Your task to perform on an android device: Search for custom t-shirts on Etsy. Image 0: 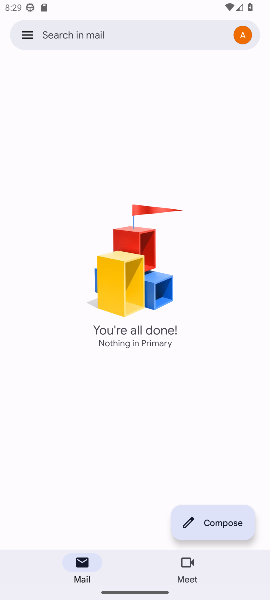
Step 0: press home button
Your task to perform on an android device: Search for custom t-shirts on Etsy. Image 1: 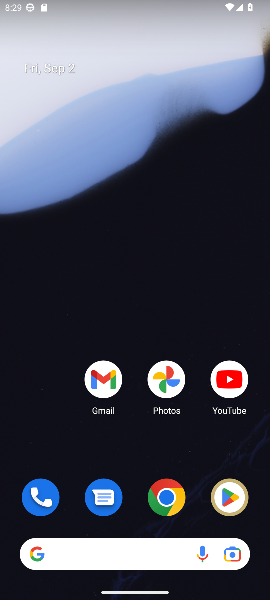
Step 1: drag from (126, 511) to (122, 251)
Your task to perform on an android device: Search for custom t-shirts on Etsy. Image 2: 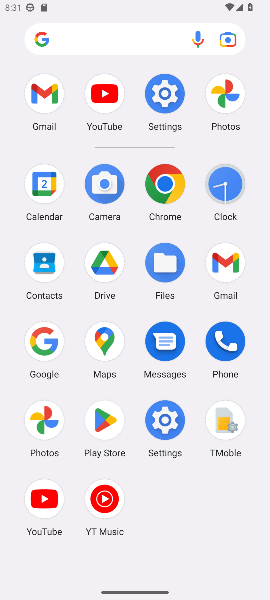
Step 2: click (48, 339)
Your task to perform on an android device: Search for custom t-shirts on Etsy. Image 3: 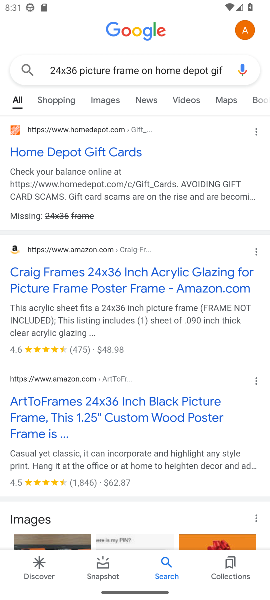
Step 3: click (126, 64)
Your task to perform on an android device: Search for custom t-shirts on Etsy. Image 4: 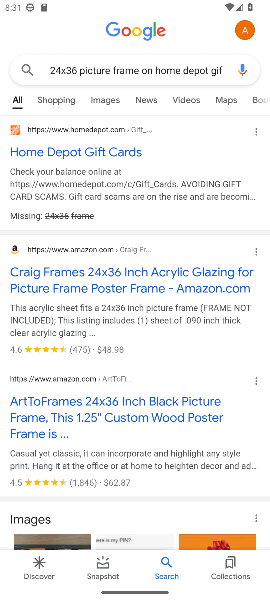
Step 4: click (126, 64)
Your task to perform on an android device: Search for custom t-shirts on Etsy. Image 5: 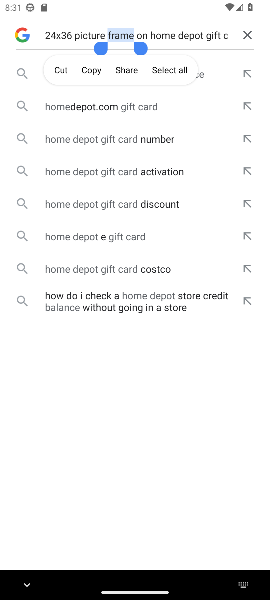
Step 5: click (246, 32)
Your task to perform on an android device: Search for custom t-shirts on Etsy. Image 6: 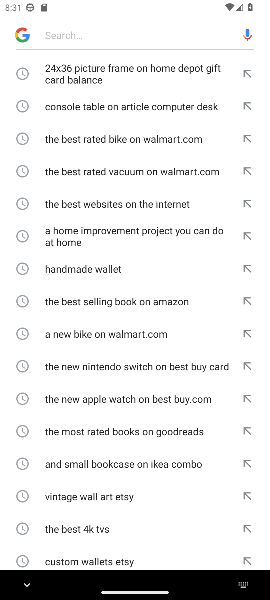
Step 6: type "custom t-shirts on Etsy."
Your task to perform on an android device: Search for custom t-shirts on Etsy. Image 7: 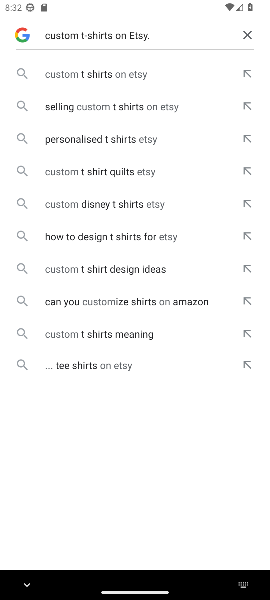
Step 7: click (106, 71)
Your task to perform on an android device: Search for custom t-shirts on Etsy. Image 8: 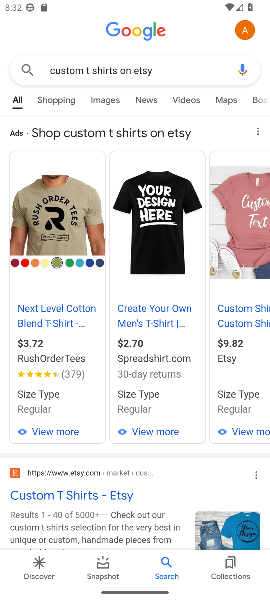
Step 8: task complete